Your task to perform on an android device: Do I have any events tomorrow? Image 0: 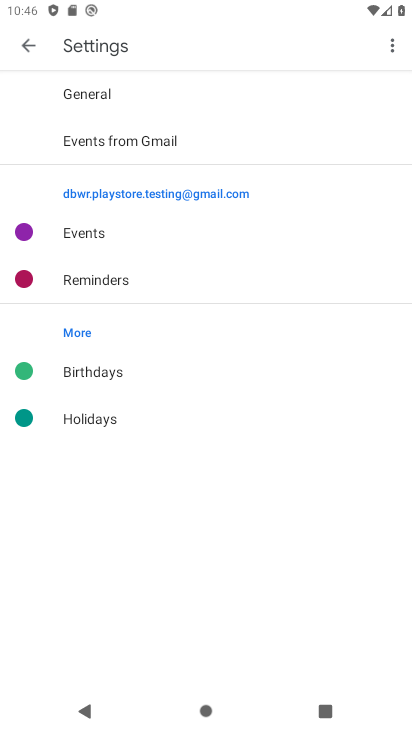
Step 0: task impossible